Your task to perform on an android device: Add dell xps to the cart on target.com, then select checkout. Image 0: 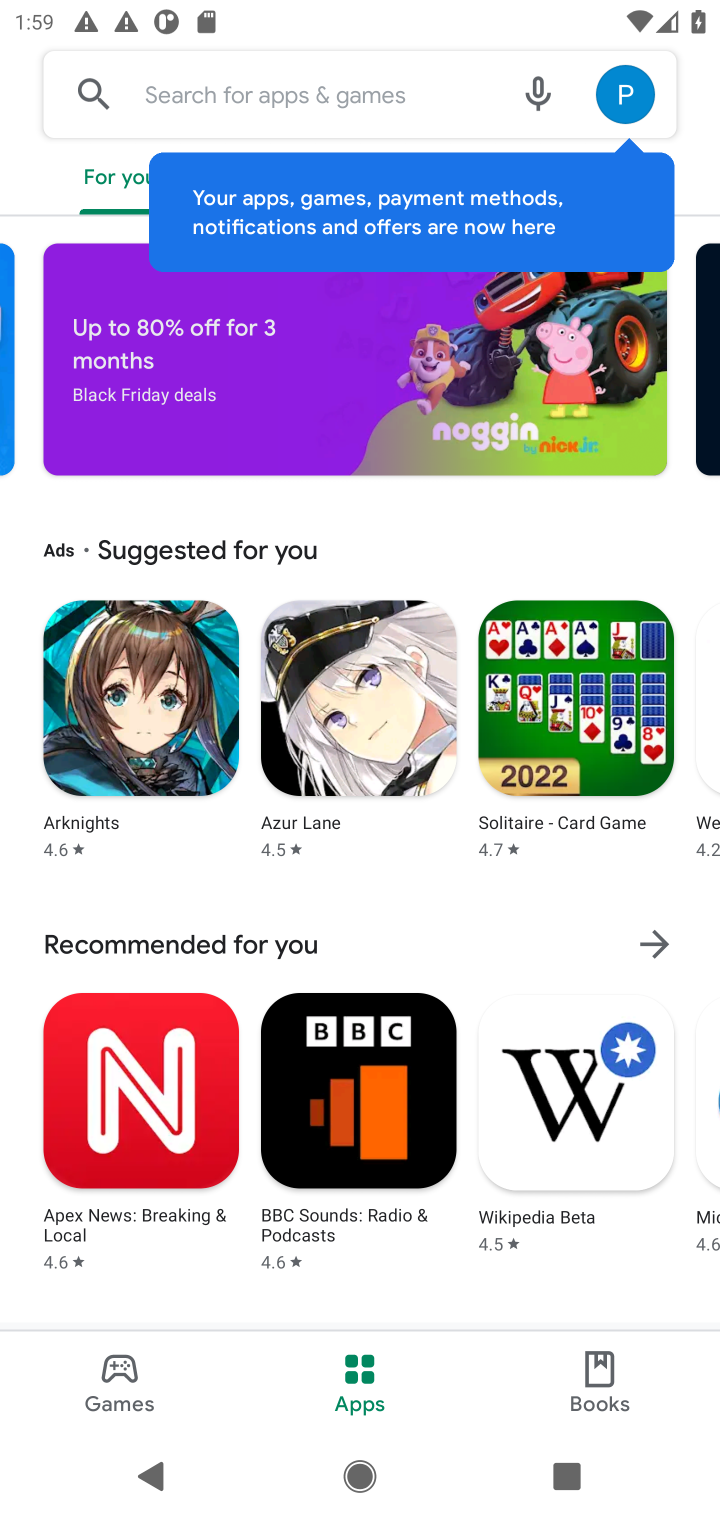
Step 0: press home button
Your task to perform on an android device: Add dell xps to the cart on target.com, then select checkout. Image 1: 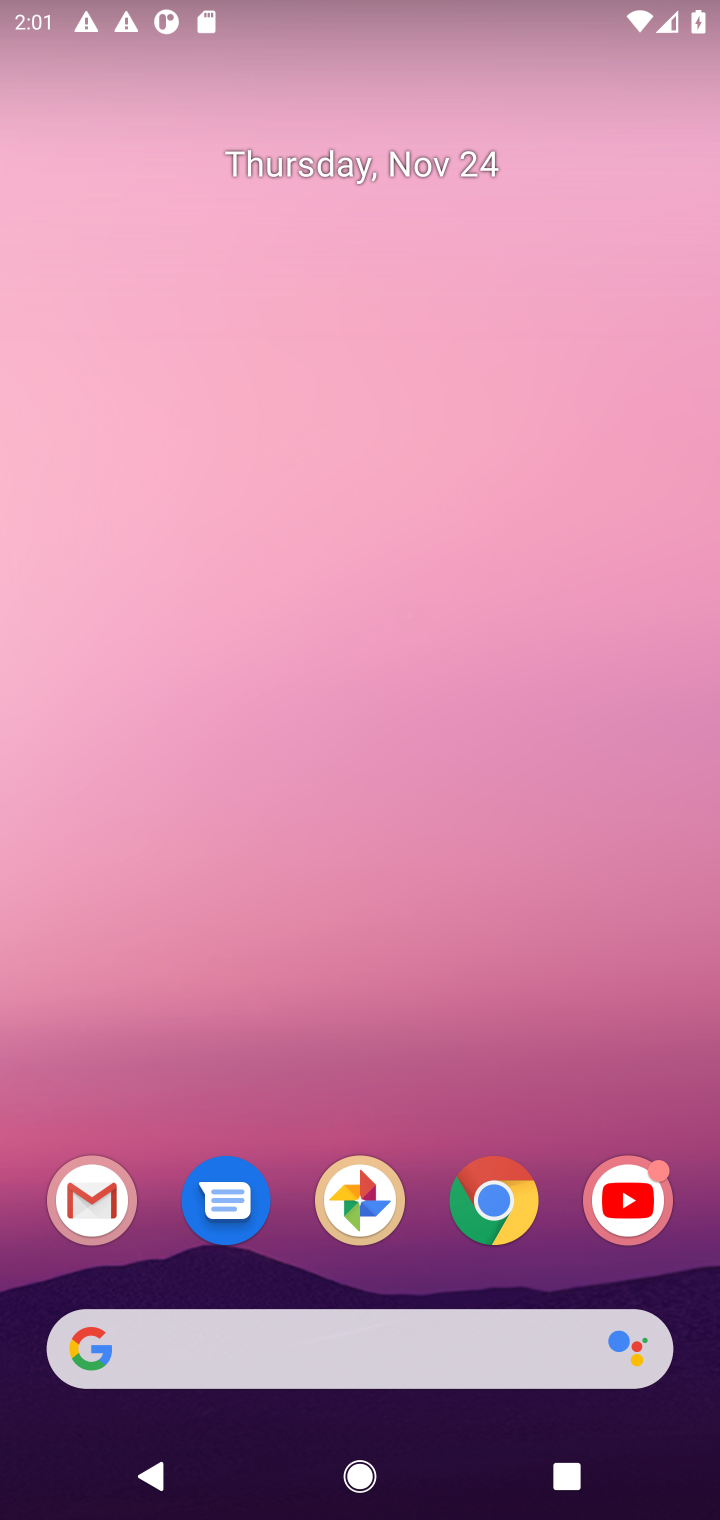
Step 1: click (316, 1343)
Your task to perform on an android device: Add dell xps to the cart on target.com, then select checkout. Image 2: 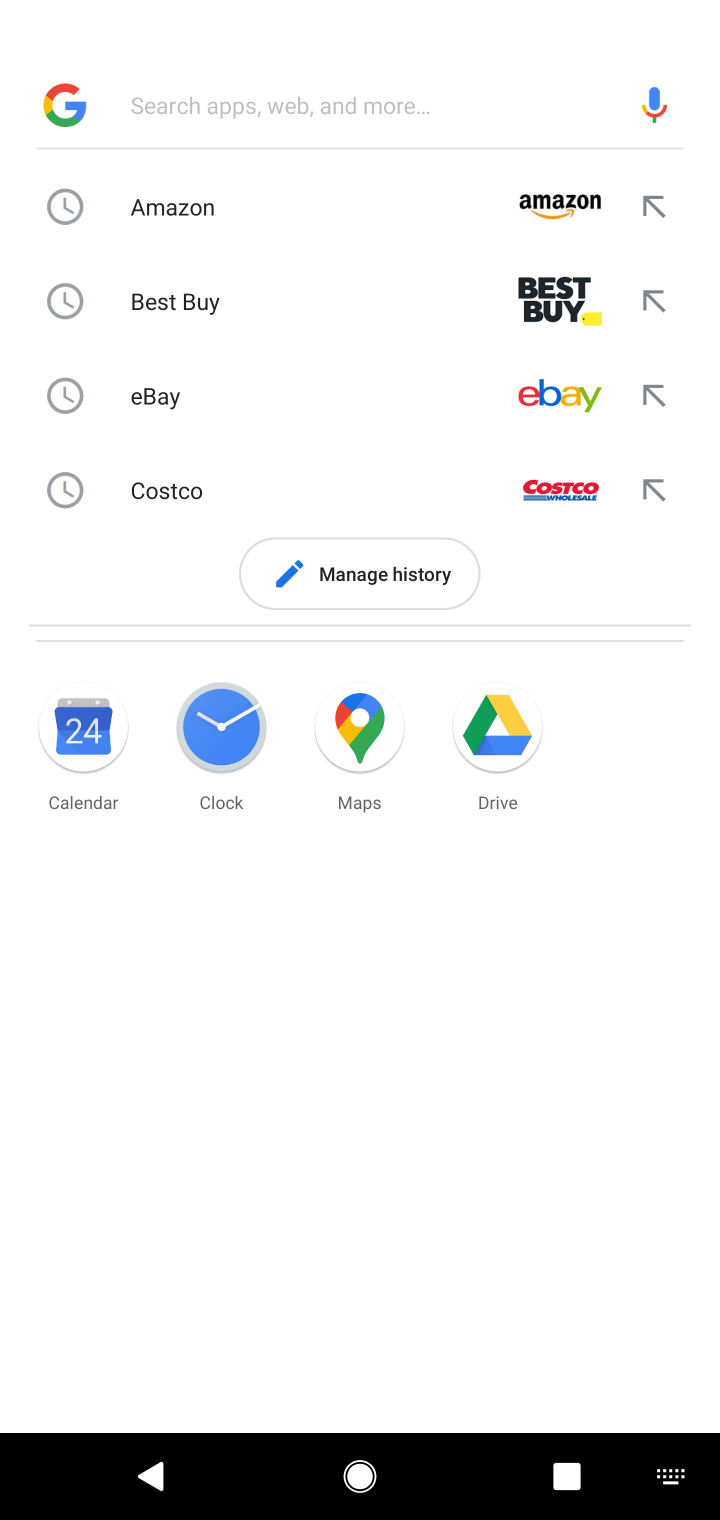
Step 2: type "target"
Your task to perform on an android device: Add dell xps to the cart on target.com, then select checkout. Image 3: 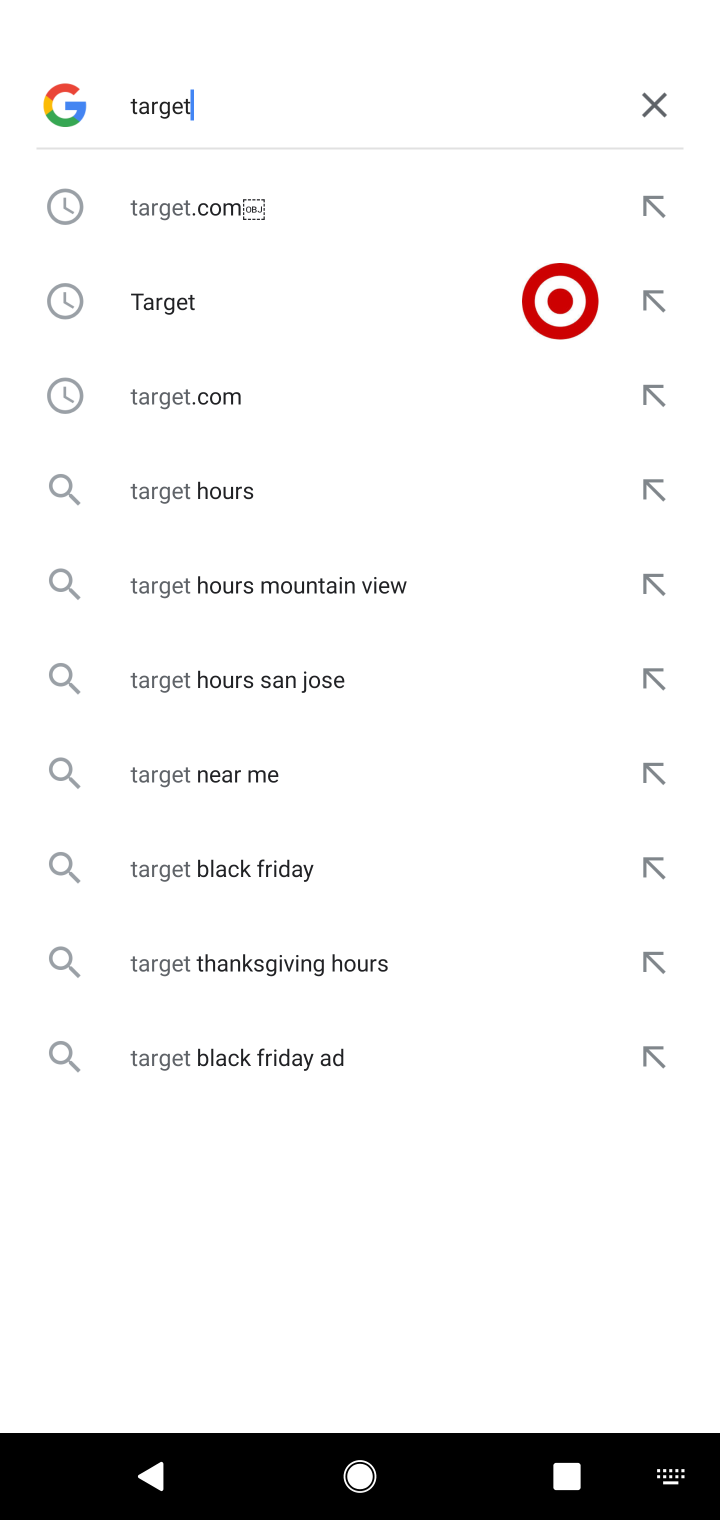
Step 3: click (151, 201)
Your task to perform on an android device: Add dell xps to the cart on target.com, then select checkout. Image 4: 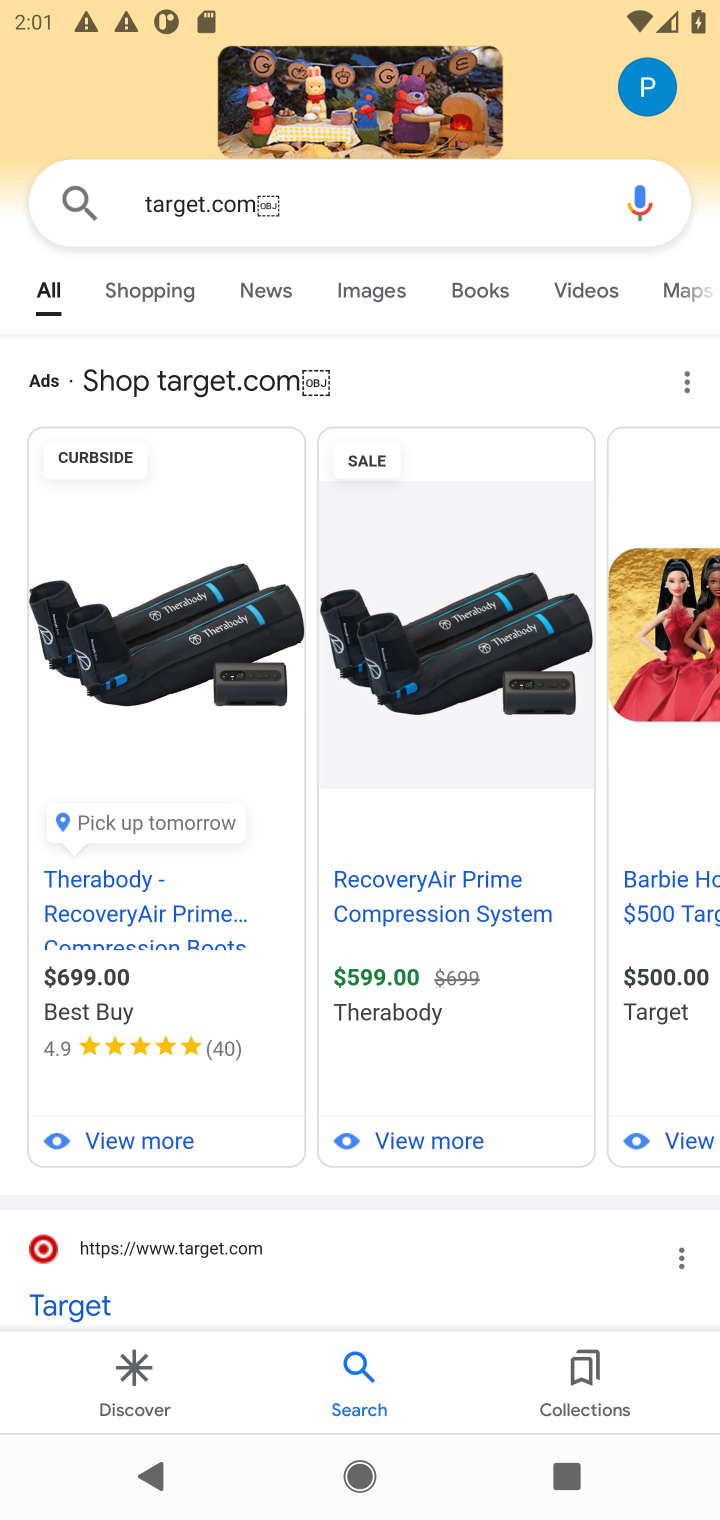
Step 4: click (139, 1280)
Your task to perform on an android device: Add dell xps to the cart on target.com, then select checkout. Image 5: 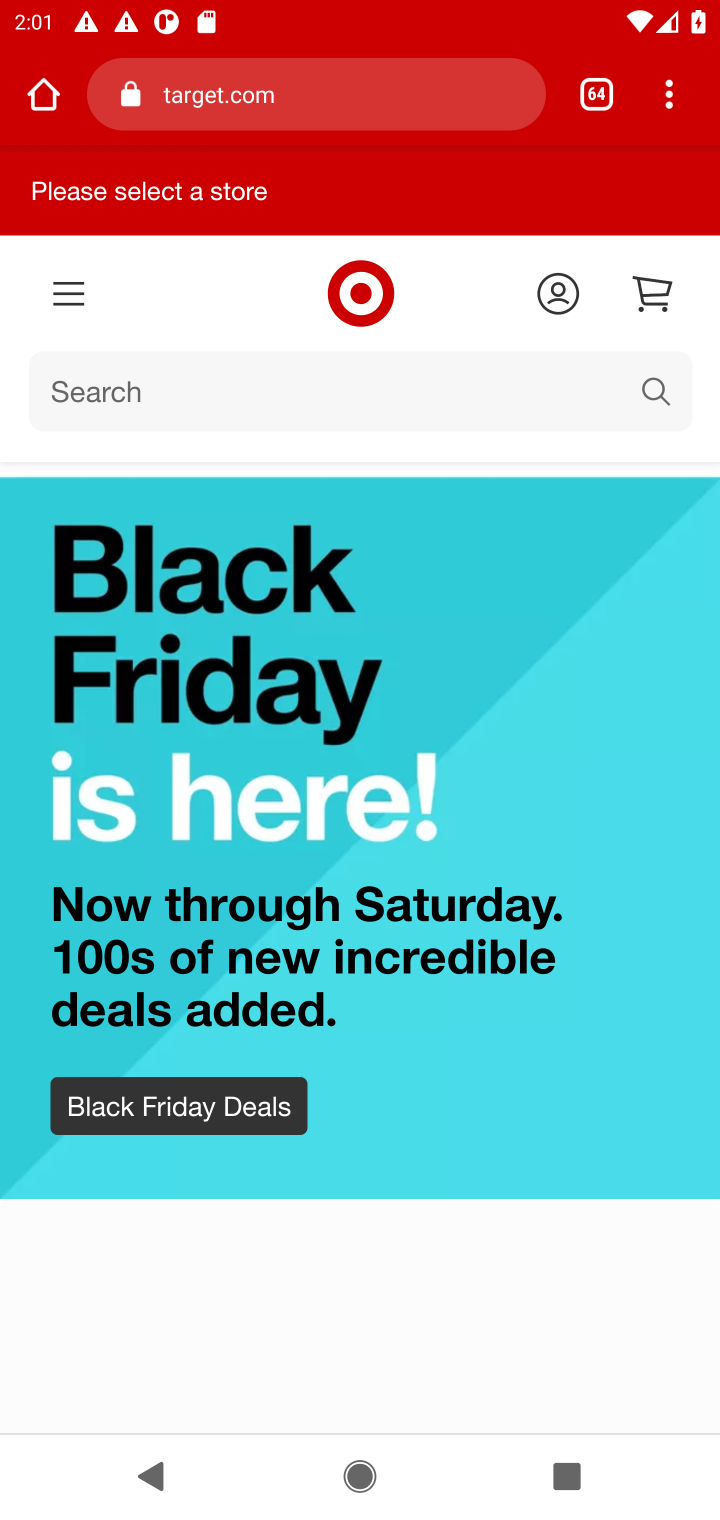
Step 5: task complete